Your task to perform on an android device: What's on my calendar today? Image 0: 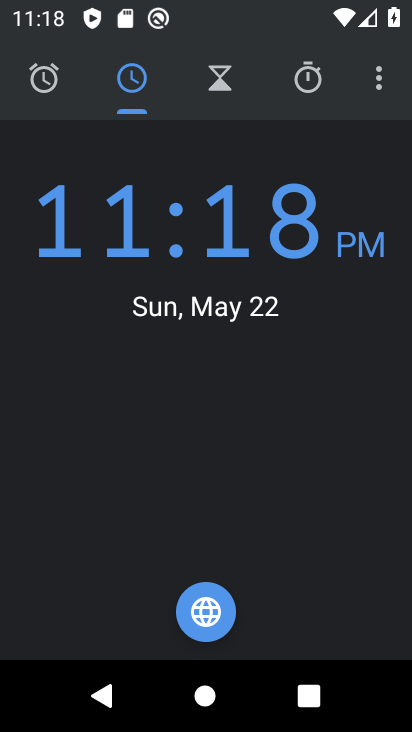
Step 0: press home button
Your task to perform on an android device: What's on my calendar today? Image 1: 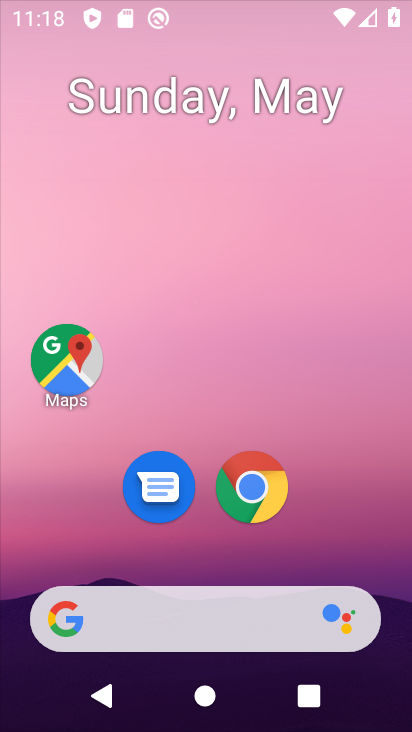
Step 1: drag from (396, 489) to (356, 13)
Your task to perform on an android device: What's on my calendar today? Image 2: 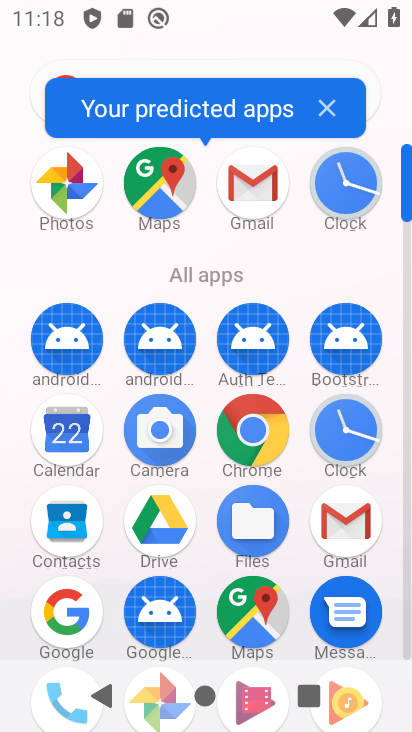
Step 2: click (71, 427)
Your task to perform on an android device: What's on my calendar today? Image 3: 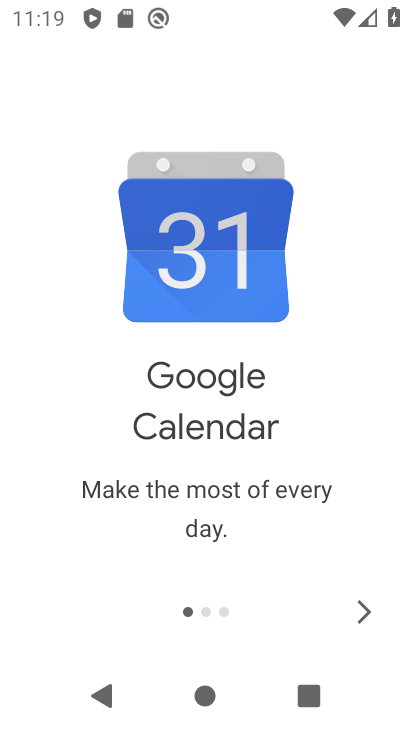
Step 3: click (368, 610)
Your task to perform on an android device: What's on my calendar today? Image 4: 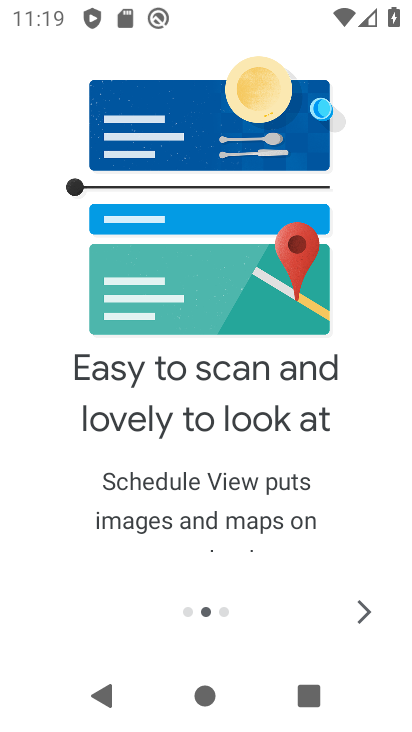
Step 4: click (357, 601)
Your task to perform on an android device: What's on my calendar today? Image 5: 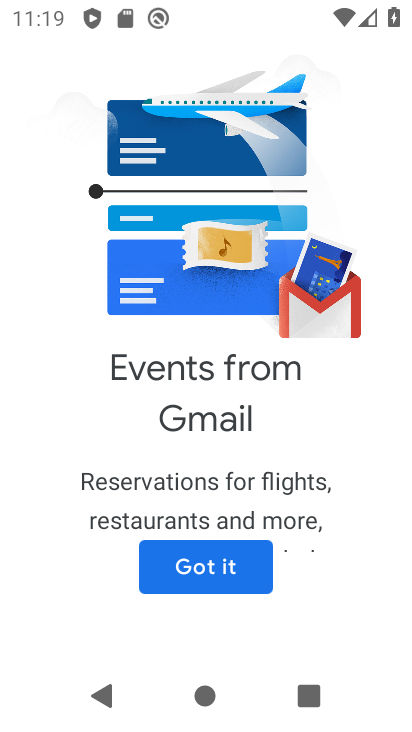
Step 5: click (223, 573)
Your task to perform on an android device: What's on my calendar today? Image 6: 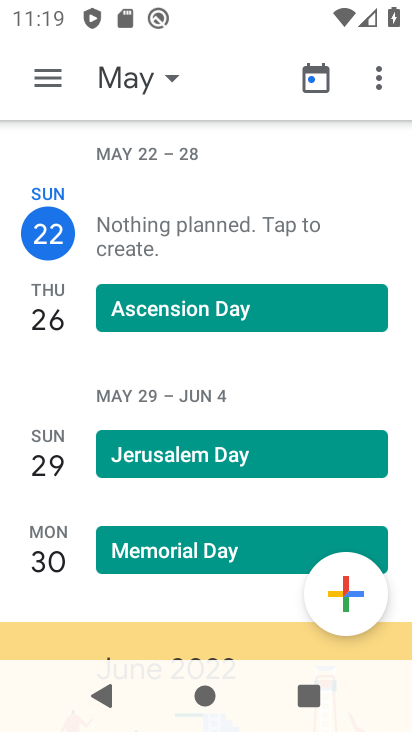
Step 6: click (148, 65)
Your task to perform on an android device: What's on my calendar today? Image 7: 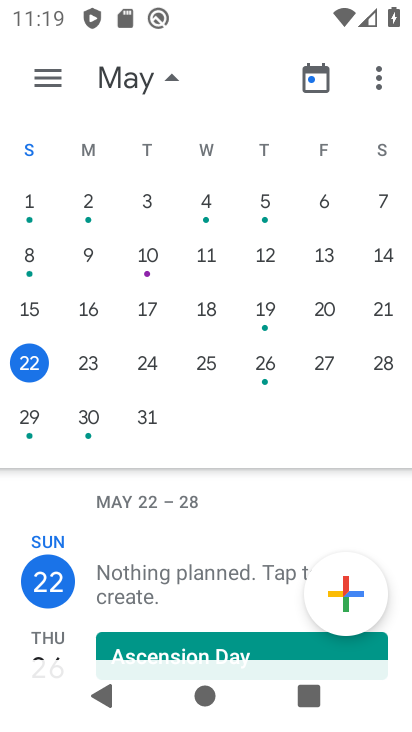
Step 7: task complete